Your task to perform on an android device: clear all cookies in the chrome app Image 0: 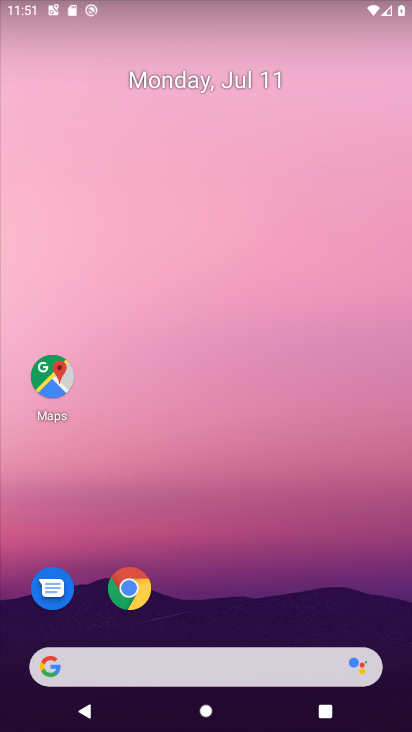
Step 0: drag from (217, 629) to (136, 334)
Your task to perform on an android device: clear all cookies in the chrome app Image 1: 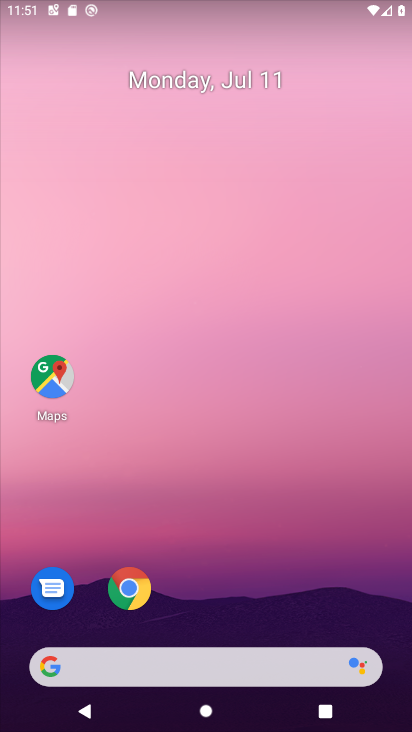
Step 1: drag from (272, 665) to (158, 198)
Your task to perform on an android device: clear all cookies in the chrome app Image 2: 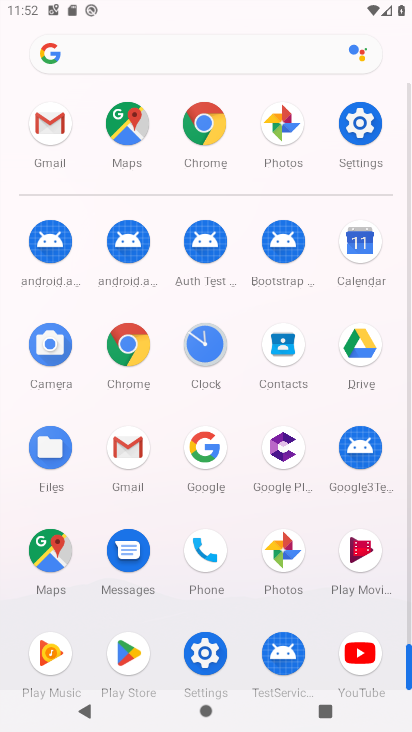
Step 2: click (200, 124)
Your task to perform on an android device: clear all cookies in the chrome app Image 3: 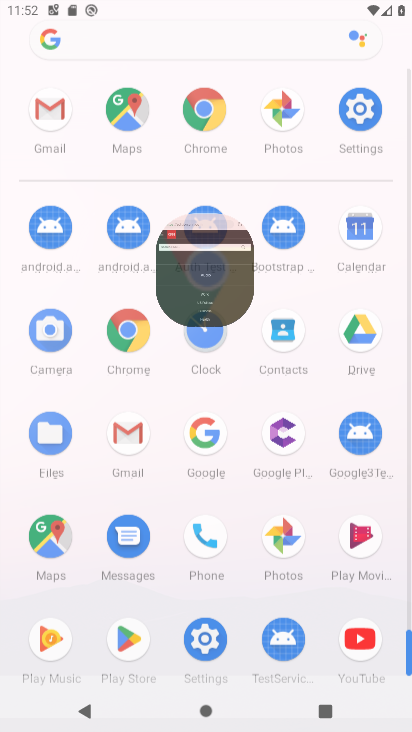
Step 3: click (196, 131)
Your task to perform on an android device: clear all cookies in the chrome app Image 4: 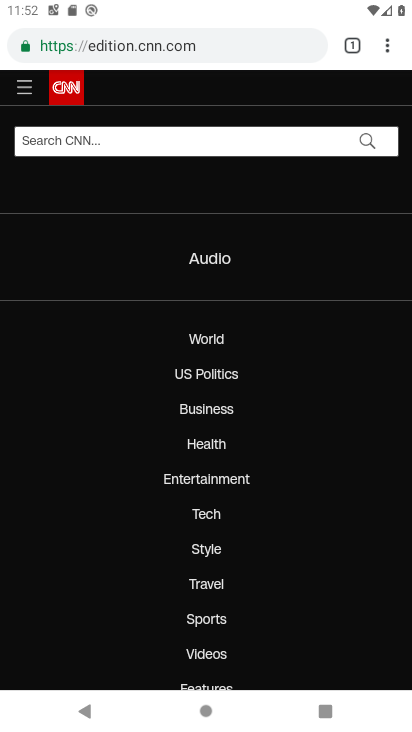
Step 4: drag from (384, 33) to (227, 553)
Your task to perform on an android device: clear all cookies in the chrome app Image 5: 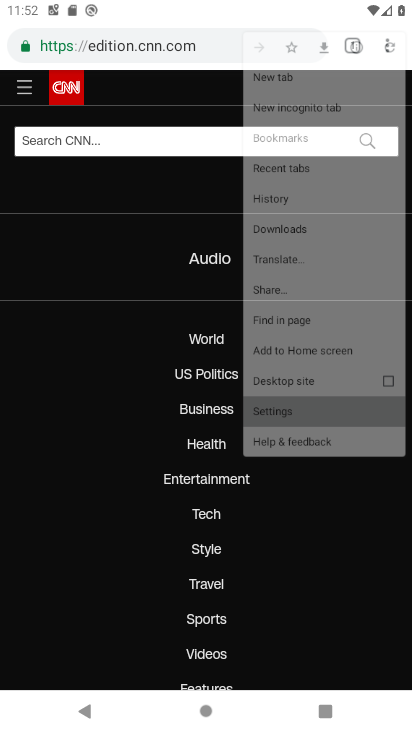
Step 5: click (227, 553)
Your task to perform on an android device: clear all cookies in the chrome app Image 6: 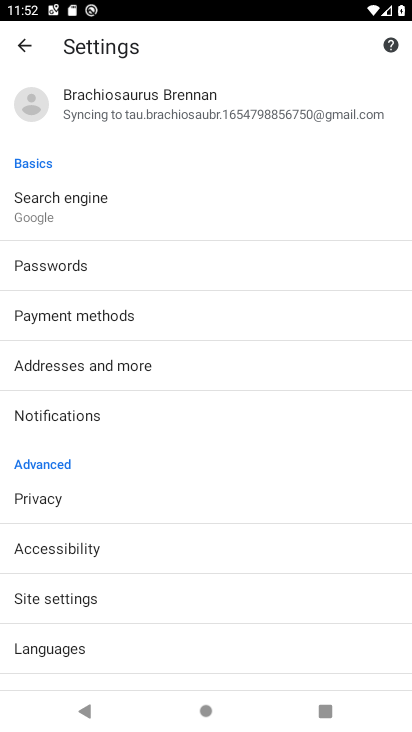
Step 6: click (52, 597)
Your task to perform on an android device: clear all cookies in the chrome app Image 7: 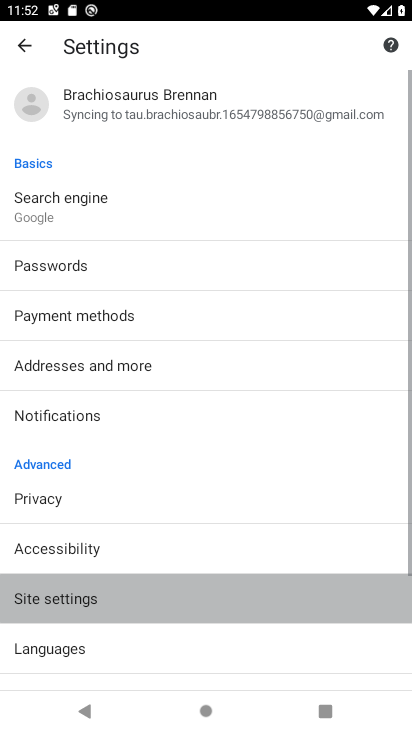
Step 7: click (53, 594)
Your task to perform on an android device: clear all cookies in the chrome app Image 8: 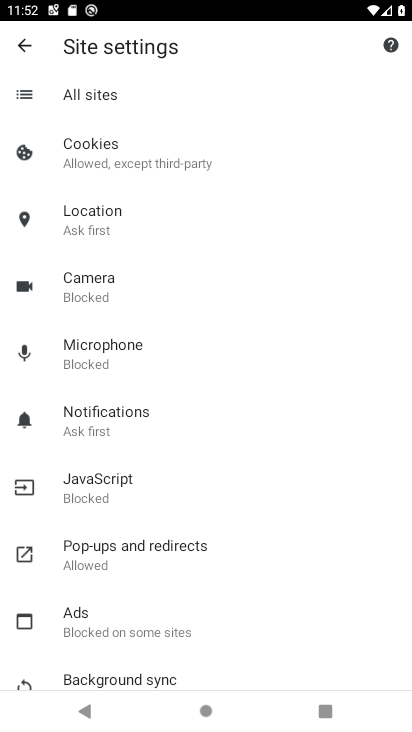
Step 8: click (82, 155)
Your task to perform on an android device: clear all cookies in the chrome app Image 9: 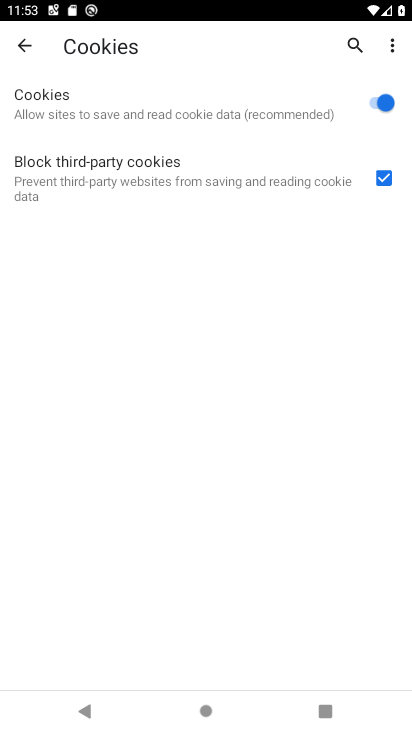
Step 9: click (82, 155)
Your task to perform on an android device: clear all cookies in the chrome app Image 10: 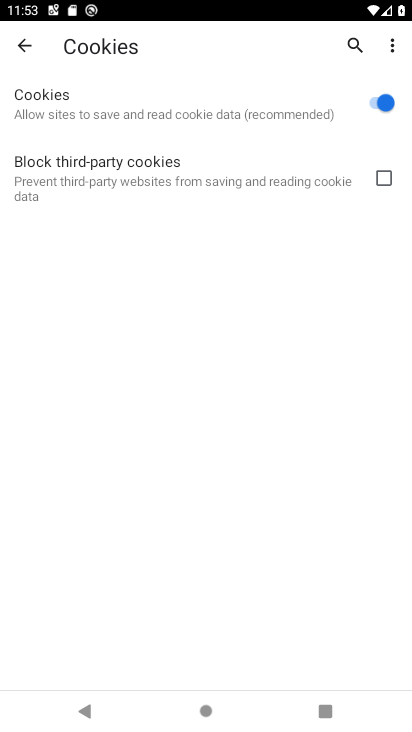
Step 10: task complete